Your task to perform on an android device: see creations saved in the google photos Image 0: 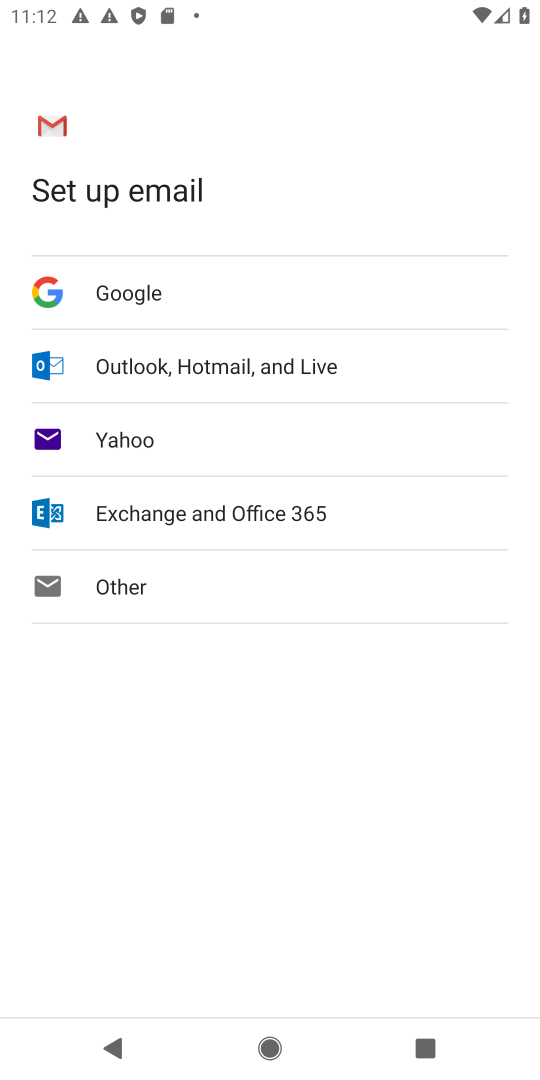
Step 0: press home button
Your task to perform on an android device: see creations saved in the google photos Image 1: 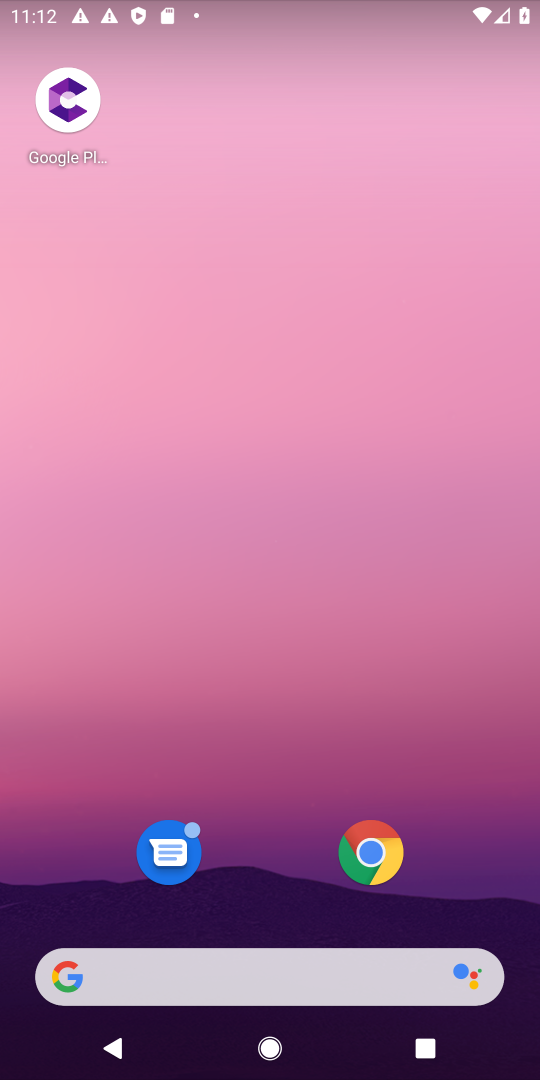
Step 1: drag from (481, 766) to (434, 319)
Your task to perform on an android device: see creations saved in the google photos Image 2: 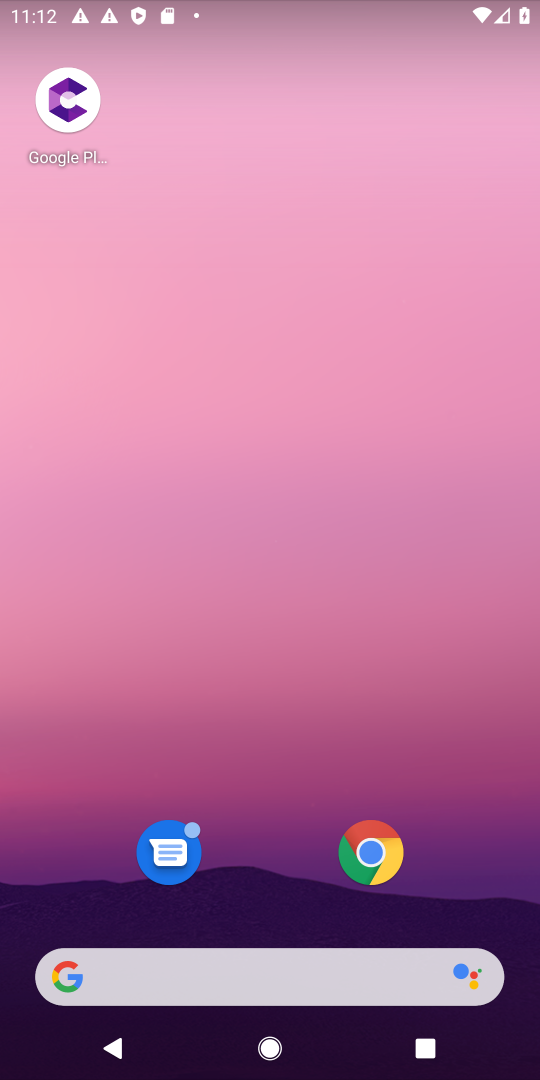
Step 2: drag from (508, 1061) to (434, 404)
Your task to perform on an android device: see creations saved in the google photos Image 3: 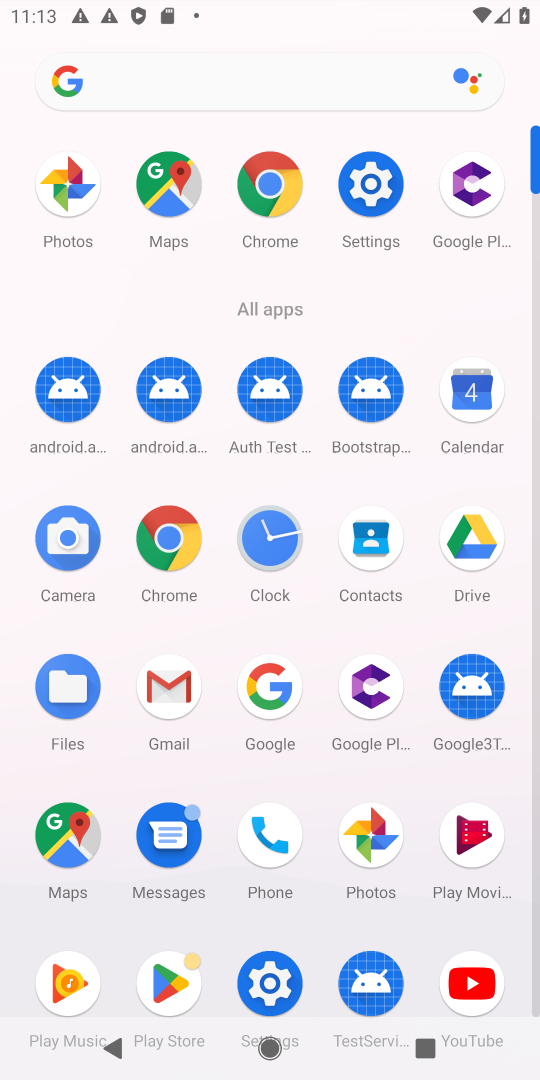
Step 3: click (355, 826)
Your task to perform on an android device: see creations saved in the google photos Image 4: 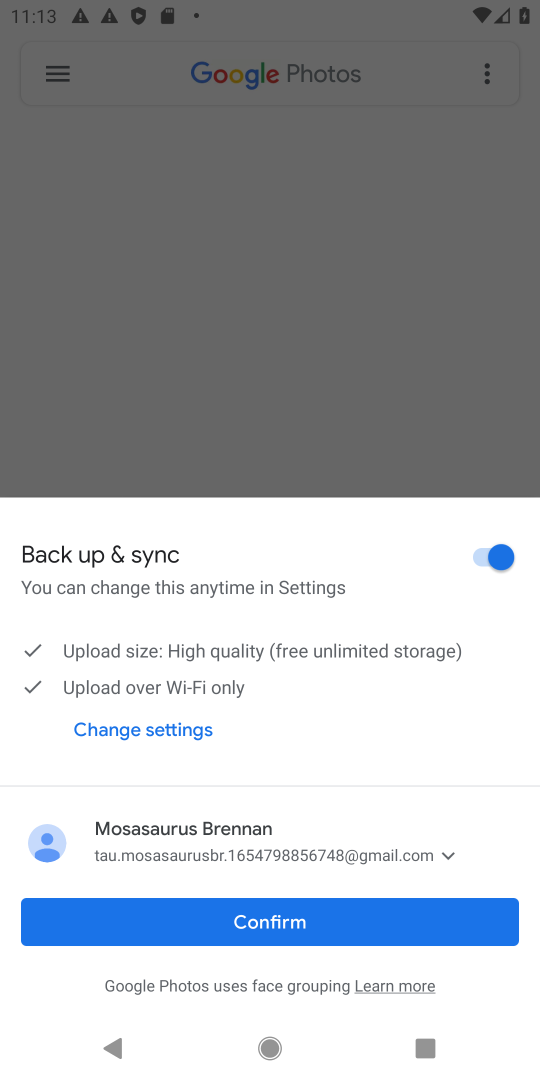
Step 4: click (297, 931)
Your task to perform on an android device: see creations saved in the google photos Image 5: 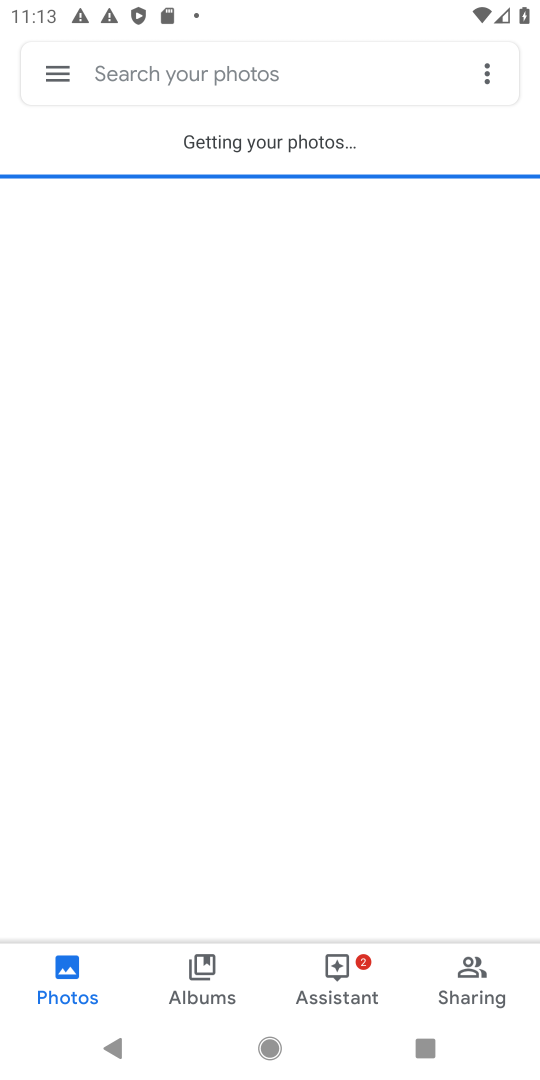
Step 5: click (64, 970)
Your task to perform on an android device: see creations saved in the google photos Image 6: 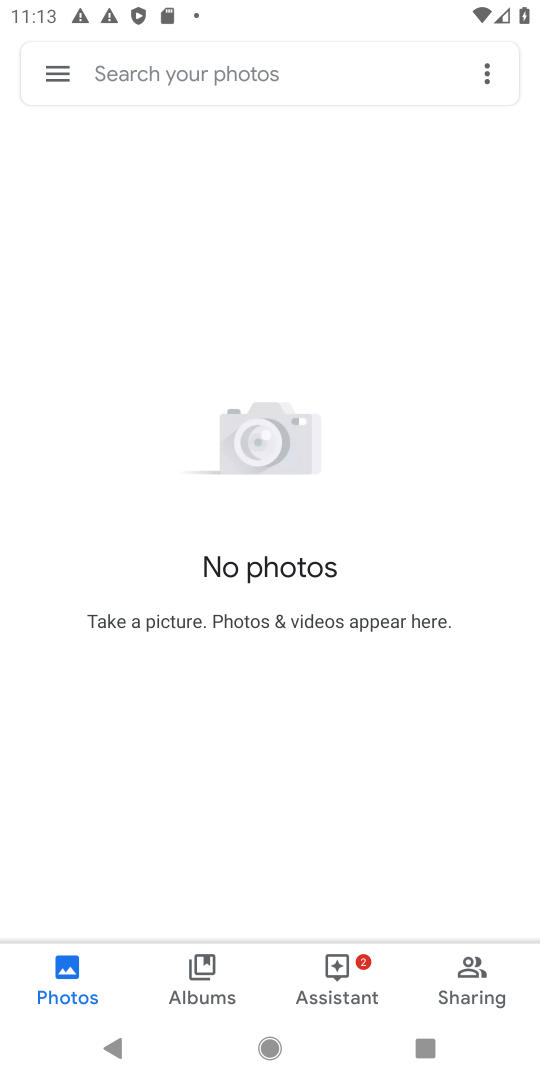
Step 6: task complete